Your task to perform on an android device: Open Google Chrome Image 0: 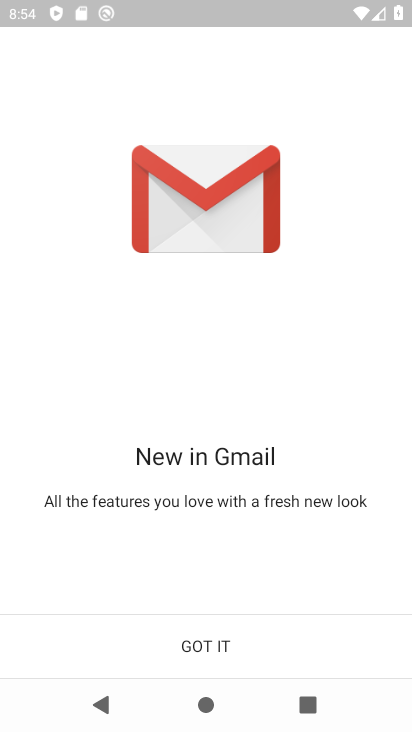
Step 0: press home button
Your task to perform on an android device: Open Google Chrome Image 1: 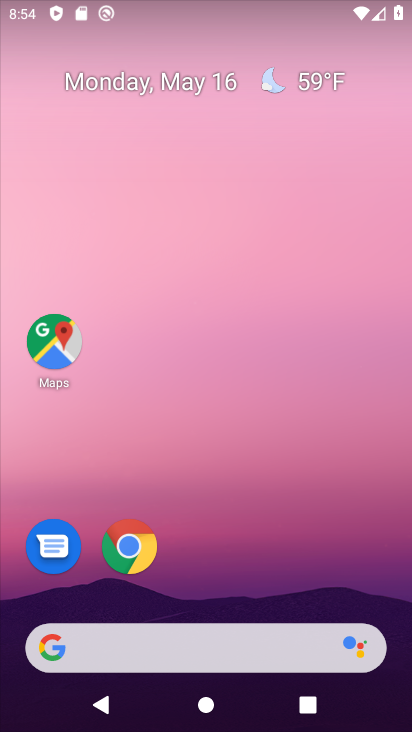
Step 1: click (132, 548)
Your task to perform on an android device: Open Google Chrome Image 2: 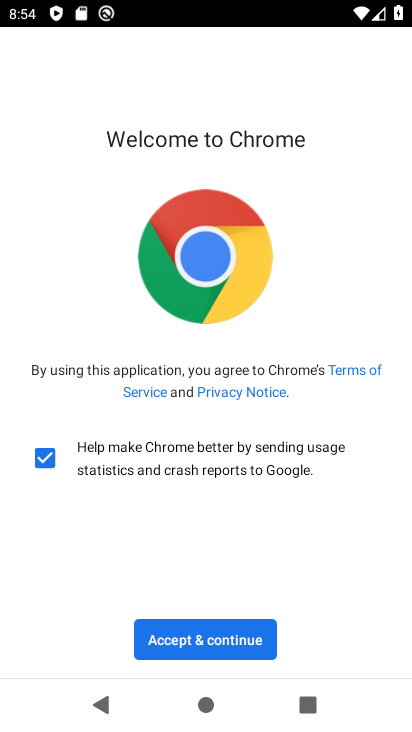
Step 2: click (142, 652)
Your task to perform on an android device: Open Google Chrome Image 3: 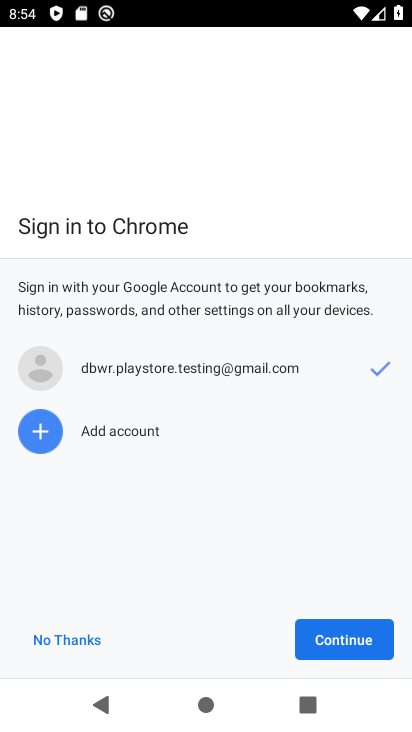
Step 3: click (344, 636)
Your task to perform on an android device: Open Google Chrome Image 4: 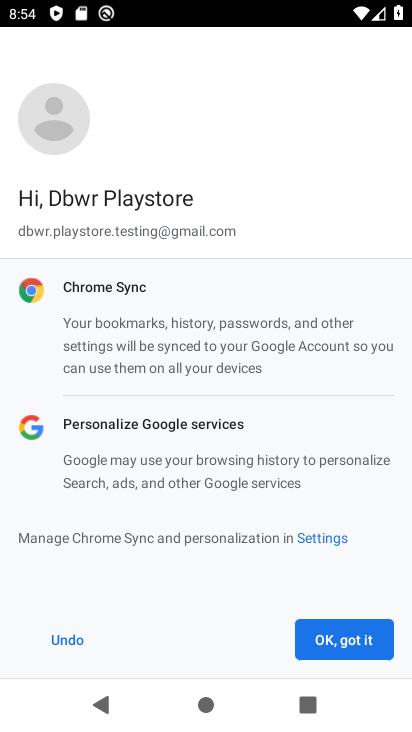
Step 4: click (344, 636)
Your task to perform on an android device: Open Google Chrome Image 5: 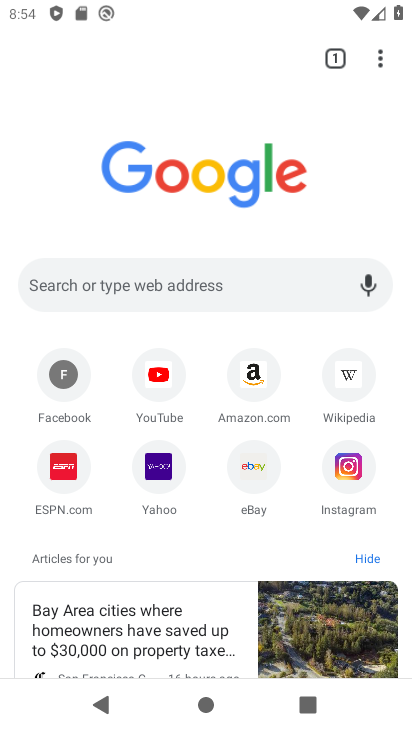
Step 5: task complete